Your task to perform on an android device: open app "VLC for Android" Image 0: 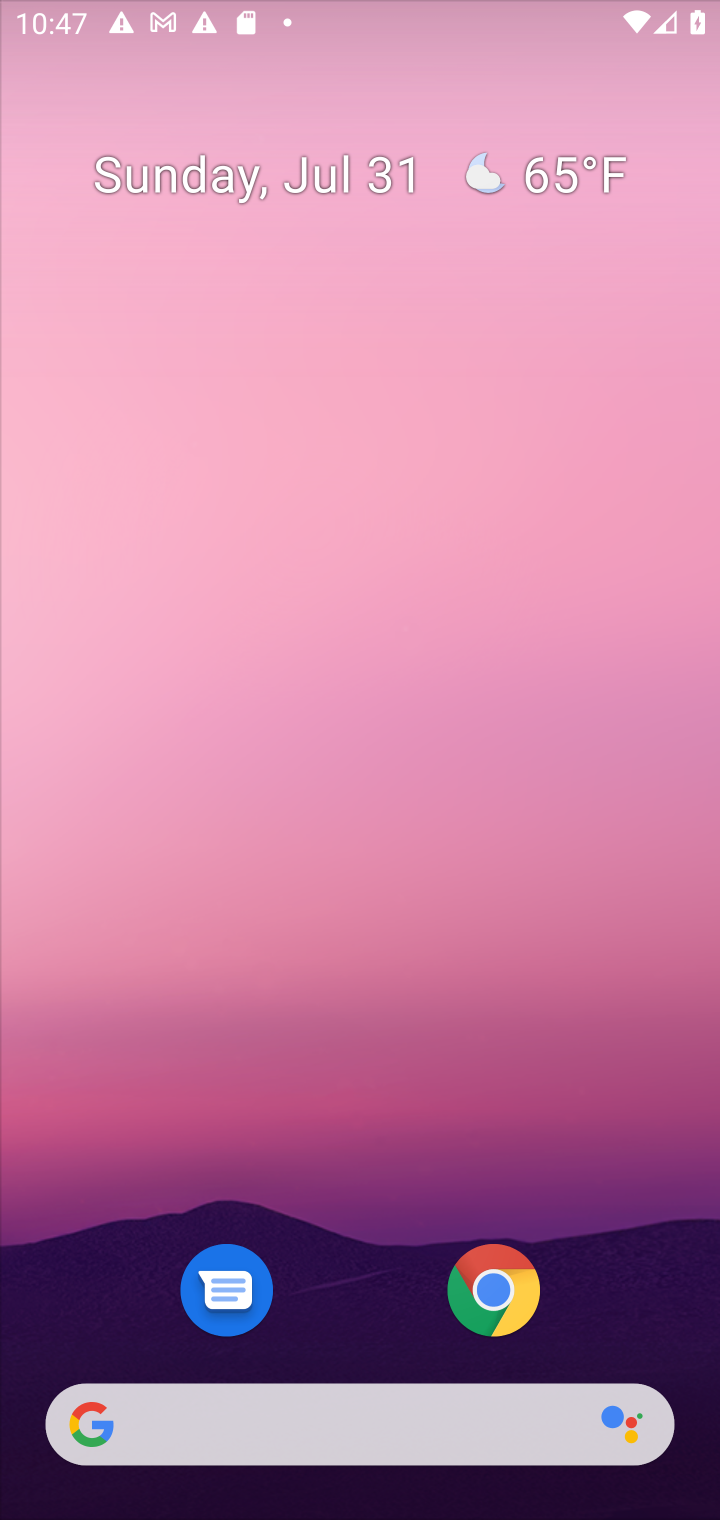
Step 0: press home button
Your task to perform on an android device: open app "VLC for Android" Image 1: 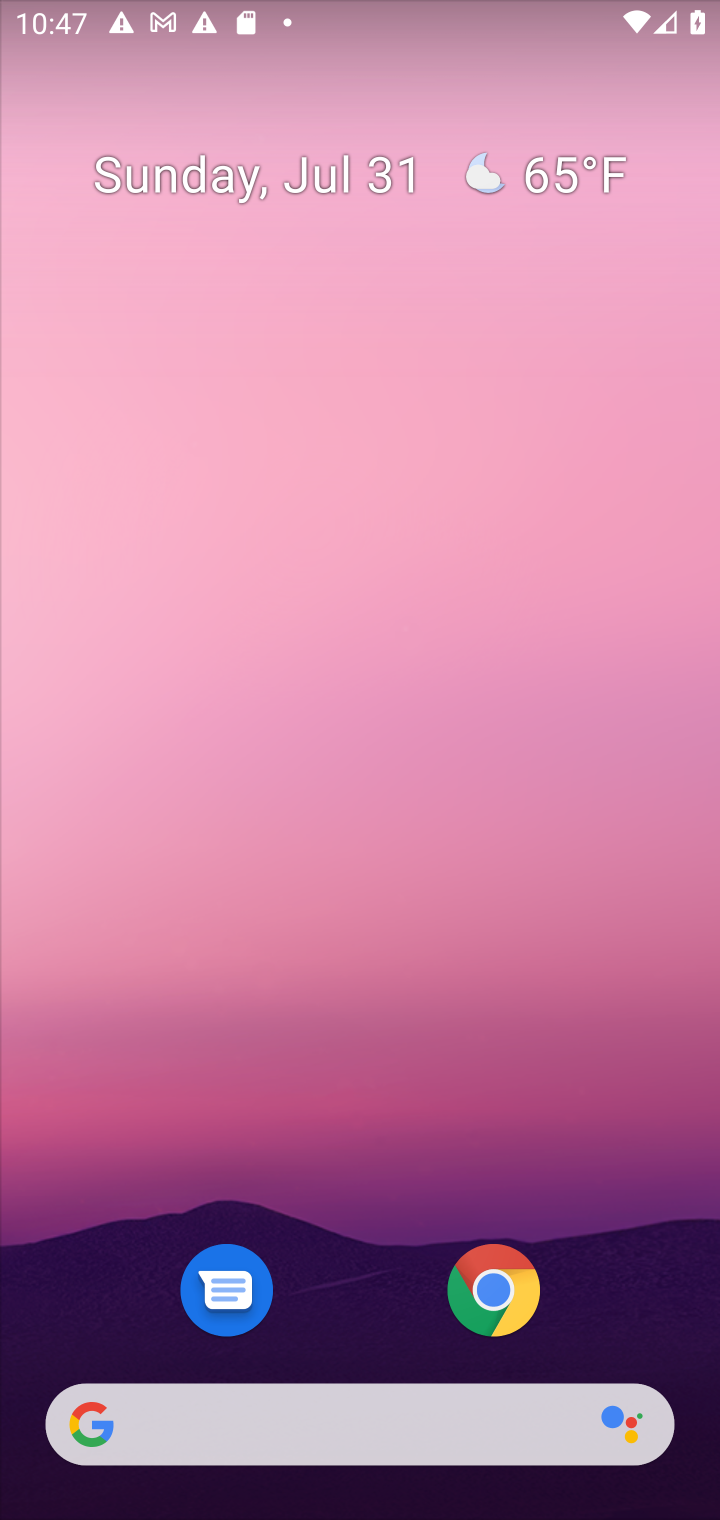
Step 1: drag from (627, 1206) to (547, 309)
Your task to perform on an android device: open app "VLC for Android" Image 2: 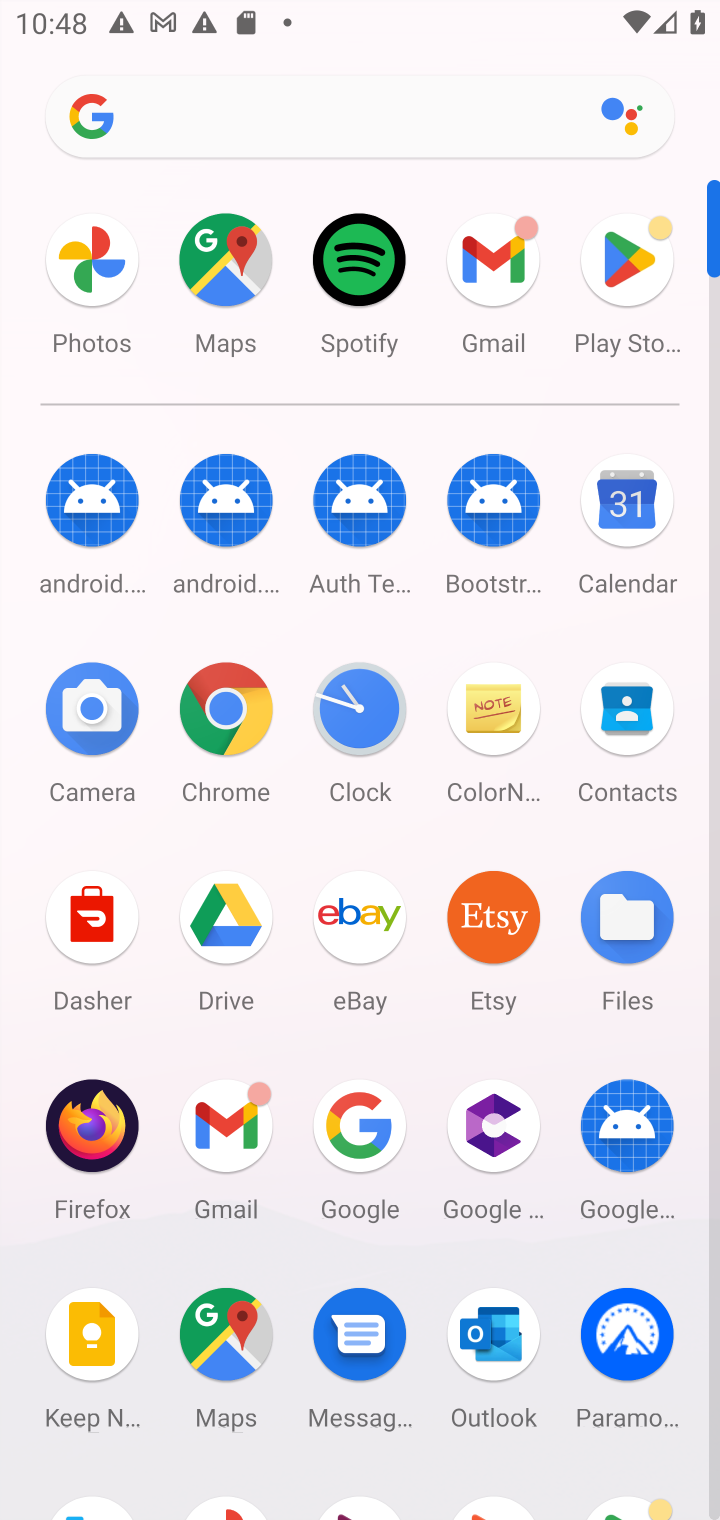
Step 2: click (636, 260)
Your task to perform on an android device: open app "VLC for Android" Image 3: 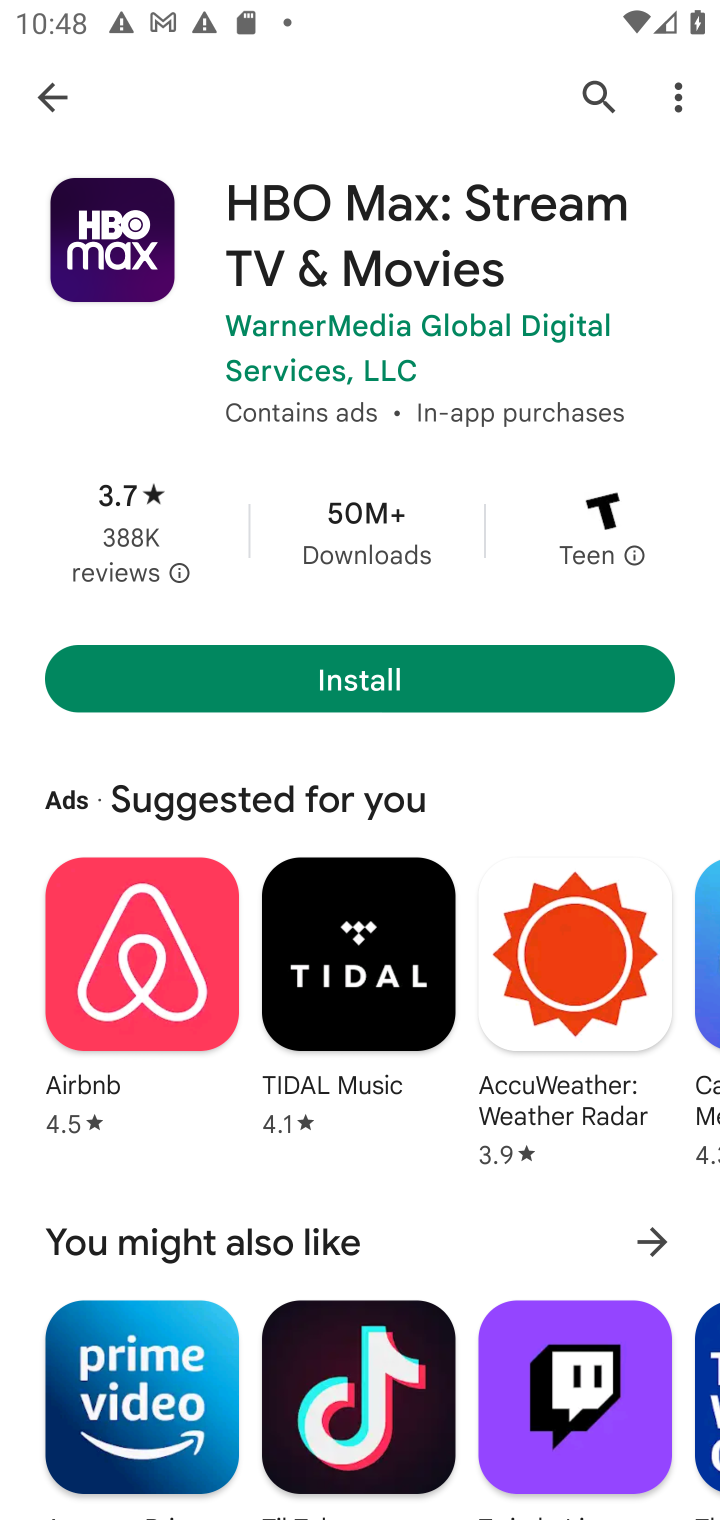
Step 3: click (596, 81)
Your task to perform on an android device: open app "VLC for Android" Image 4: 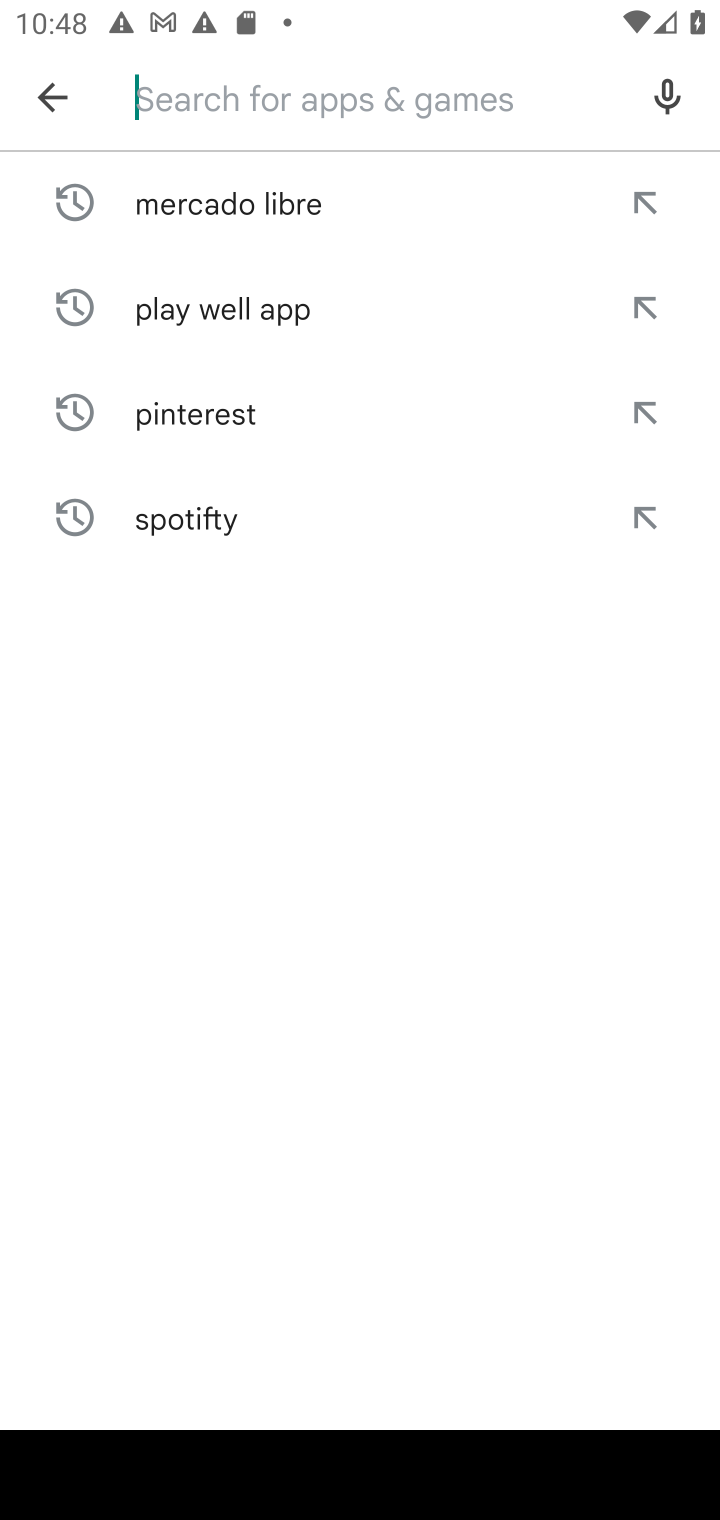
Step 4: type "vlc for android"
Your task to perform on an android device: open app "VLC for Android" Image 5: 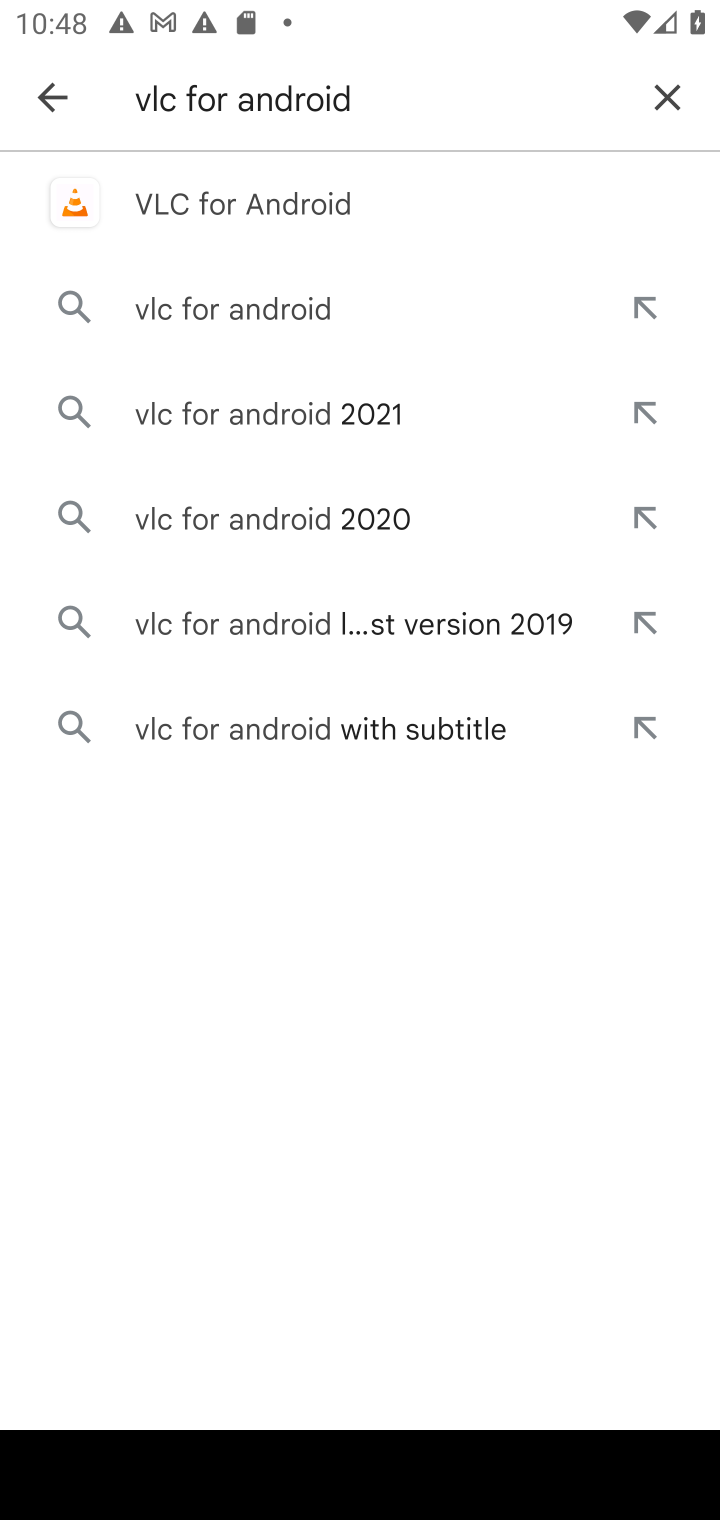
Step 5: click (416, 208)
Your task to perform on an android device: open app "VLC for Android" Image 6: 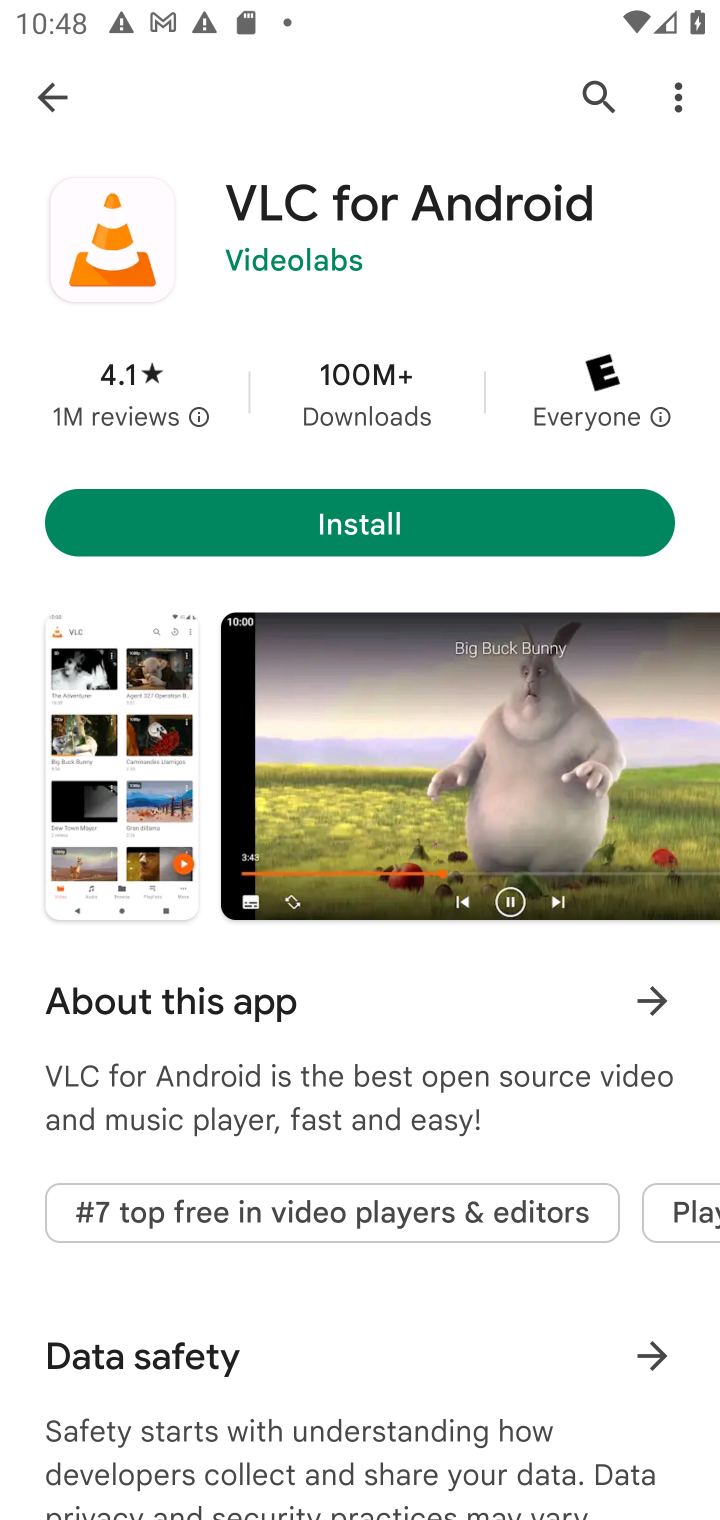
Step 6: task complete